Your task to perform on an android device: turn on the 24-hour format for clock Image 0: 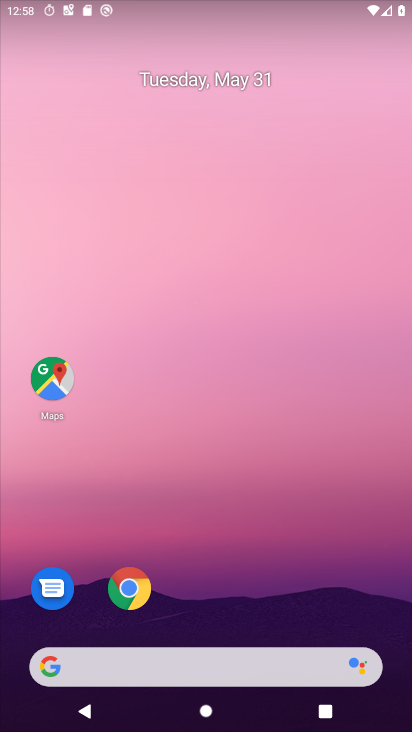
Step 0: drag from (198, 607) to (262, 76)
Your task to perform on an android device: turn on the 24-hour format for clock Image 1: 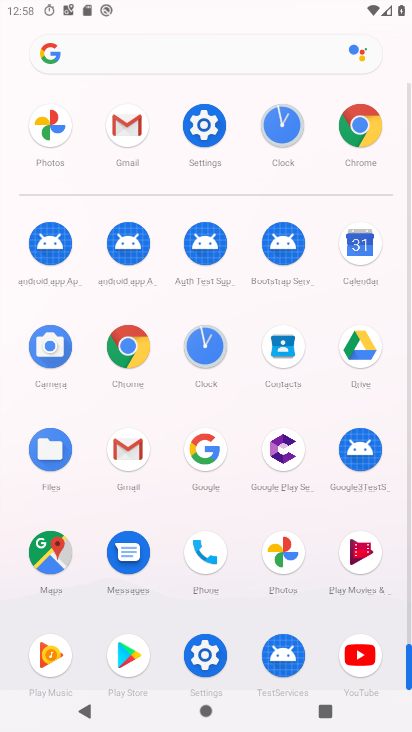
Step 1: click (204, 342)
Your task to perform on an android device: turn on the 24-hour format for clock Image 2: 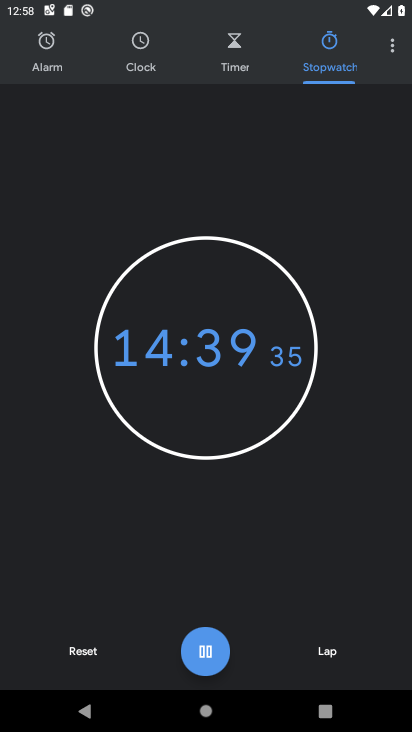
Step 2: click (400, 41)
Your task to perform on an android device: turn on the 24-hour format for clock Image 3: 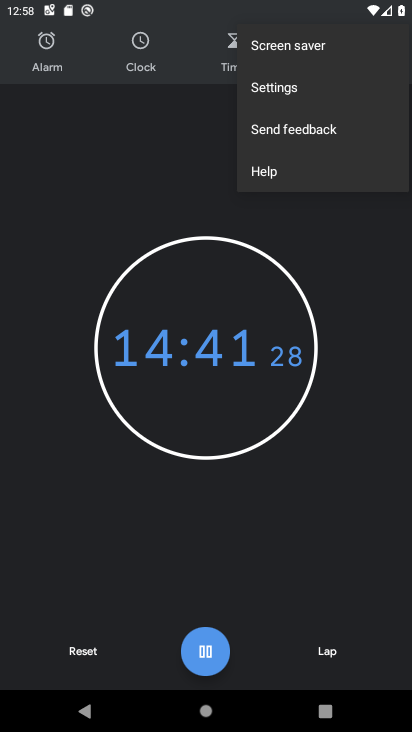
Step 3: click (291, 82)
Your task to perform on an android device: turn on the 24-hour format for clock Image 4: 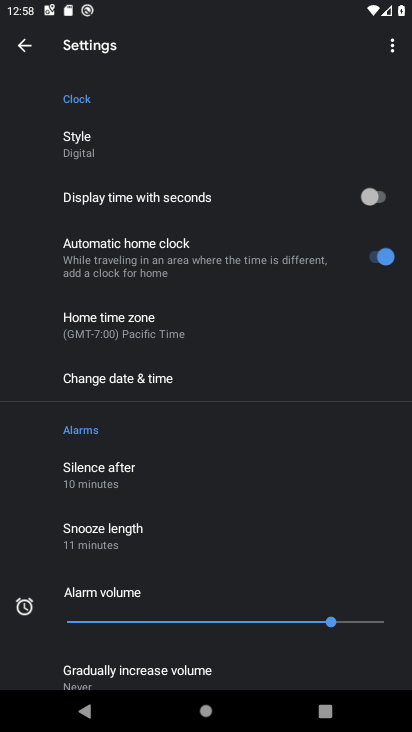
Step 4: click (173, 380)
Your task to perform on an android device: turn on the 24-hour format for clock Image 5: 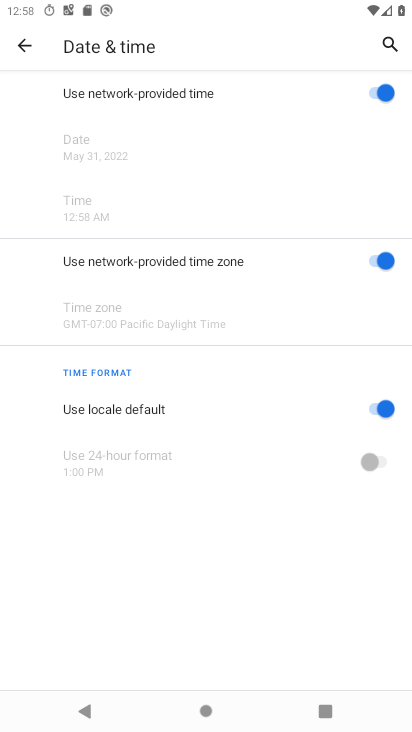
Step 5: click (382, 462)
Your task to perform on an android device: turn on the 24-hour format for clock Image 6: 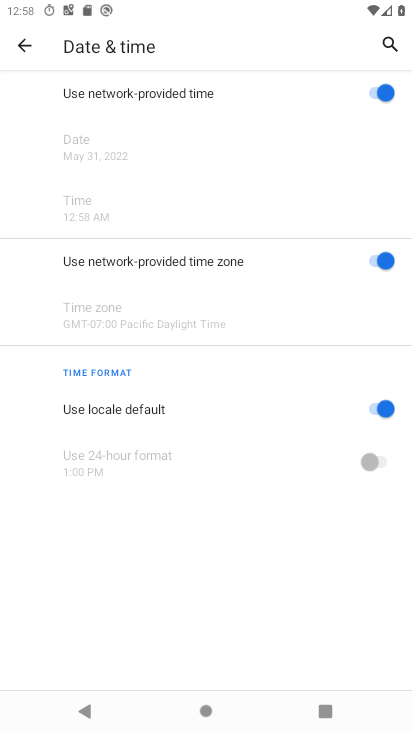
Step 6: click (382, 404)
Your task to perform on an android device: turn on the 24-hour format for clock Image 7: 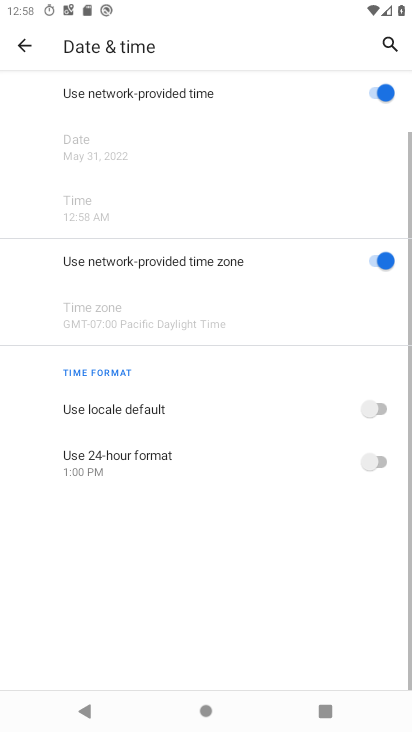
Step 7: click (379, 457)
Your task to perform on an android device: turn on the 24-hour format for clock Image 8: 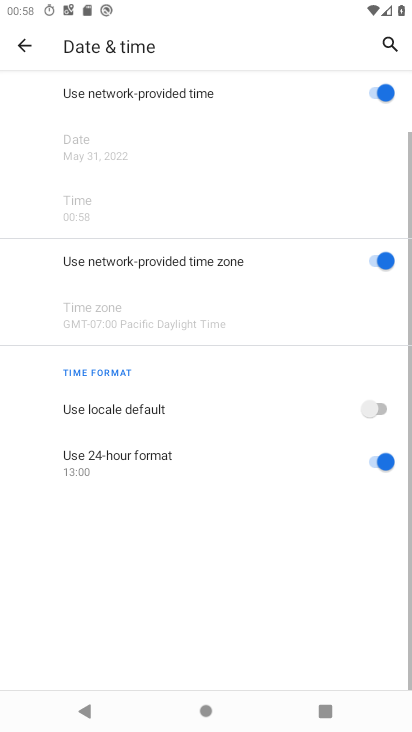
Step 8: task complete